Your task to perform on an android device: Open the stopwatch Image 0: 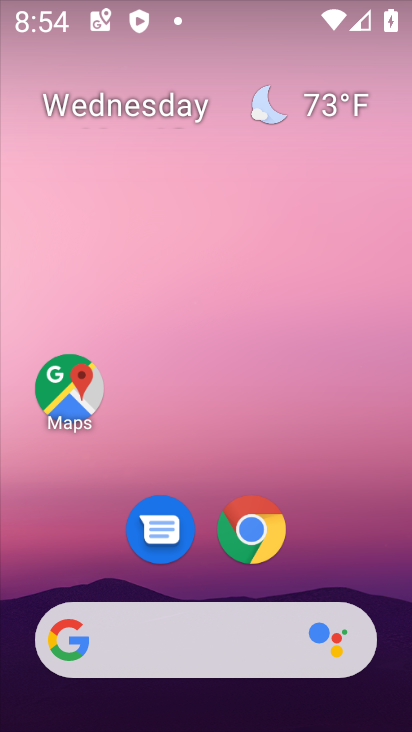
Step 0: drag from (342, 547) to (327, 142)
Your task to perform on an android device: Open the stopwatch Image 1: 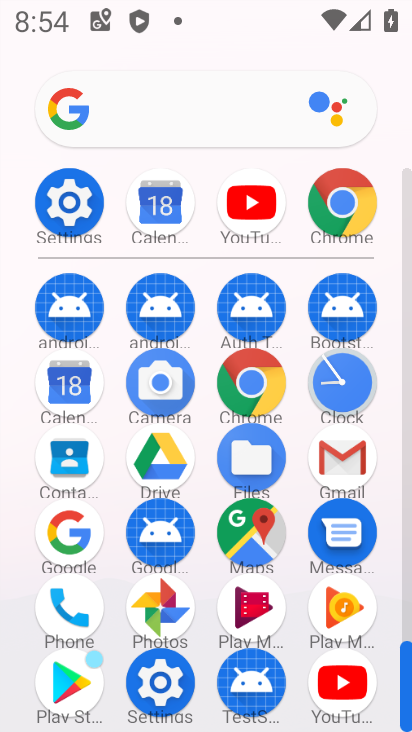
Step 1: click (338, 398)
Your task to perform on an android device: Open the stopwatch Image 2: 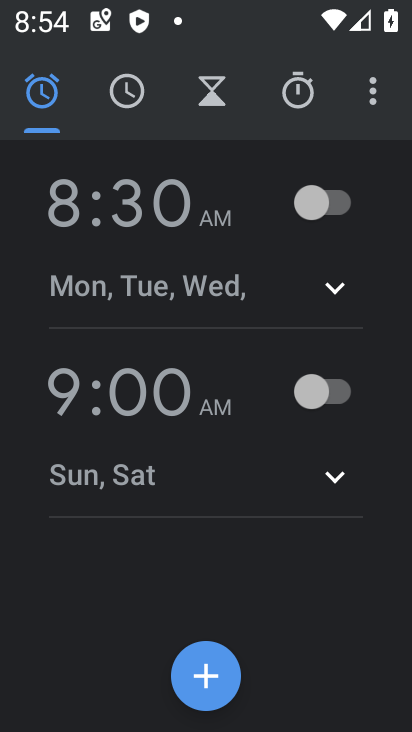
Step 2: click (307, 96)
Your task to perform on an android device: Open the stopwatch Image 3: 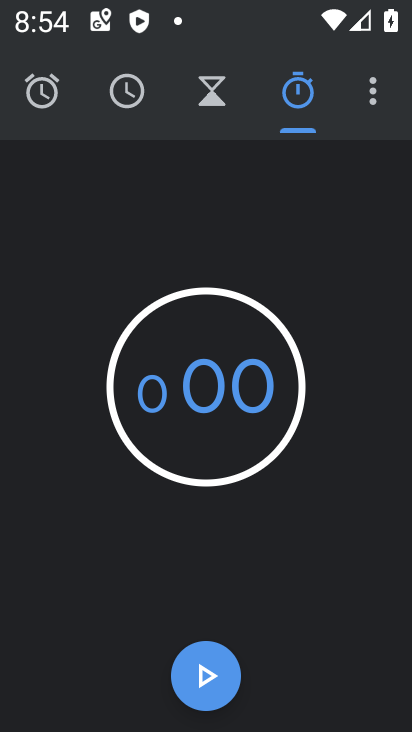
Step 3: task complete